Your task to perform on an android device: check android version Image 0: 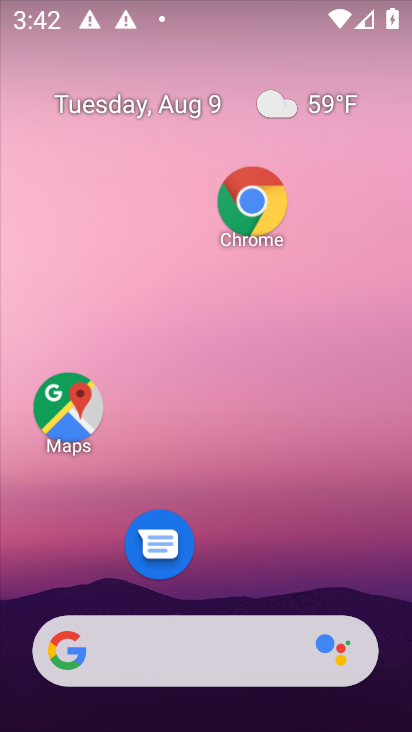
Step 0: drag from (204, 420) to (210, 317)
Your task to perform on an android device: check android version Image 1: 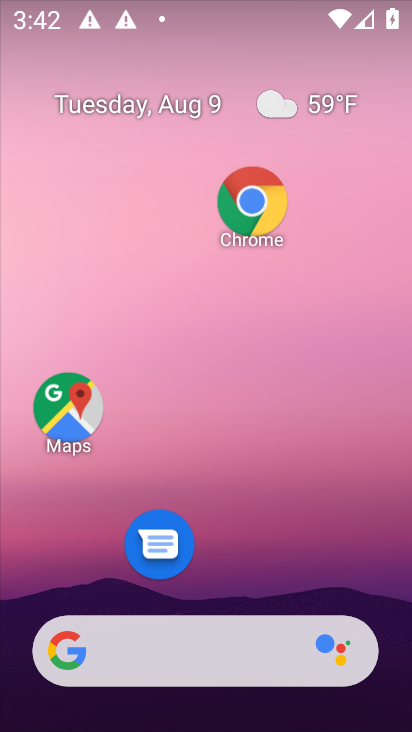
Step 1: drag from (229, 610) to (261, 101)
Your task to perform on an android device: check android version Image 2: 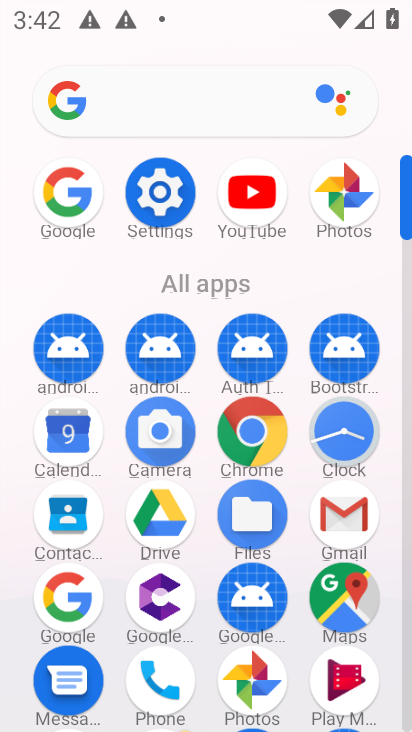
Step 2: click (155, 188)
Your task to perform on an android device: check android version Image 3: 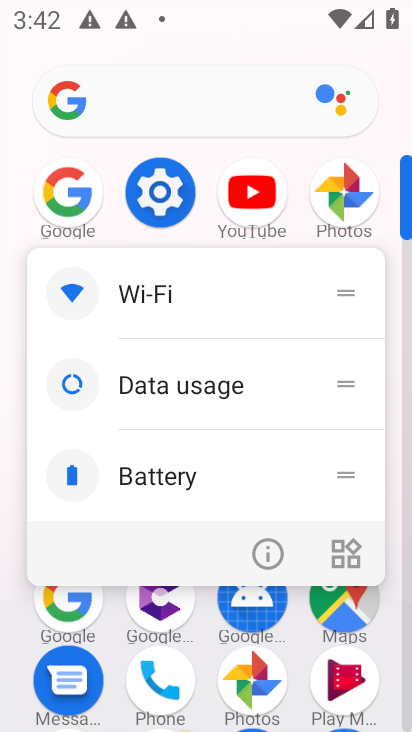
Step 3: click (170, 198)
Your task to perform on an android device: check android version Image 4: 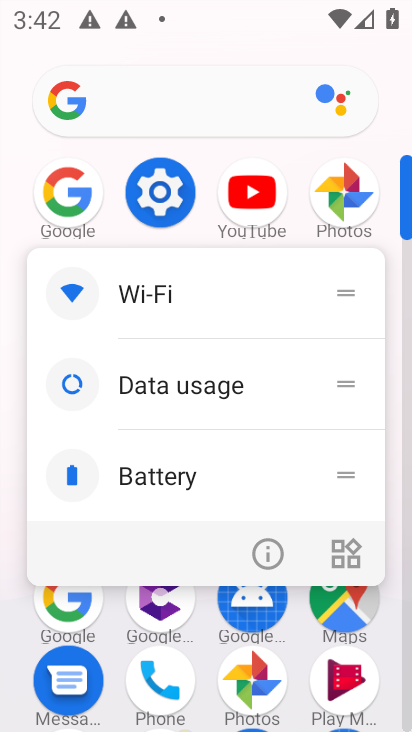
Step 4: click (158, 199)
Your task to perform on an android device: check android version Image 5: 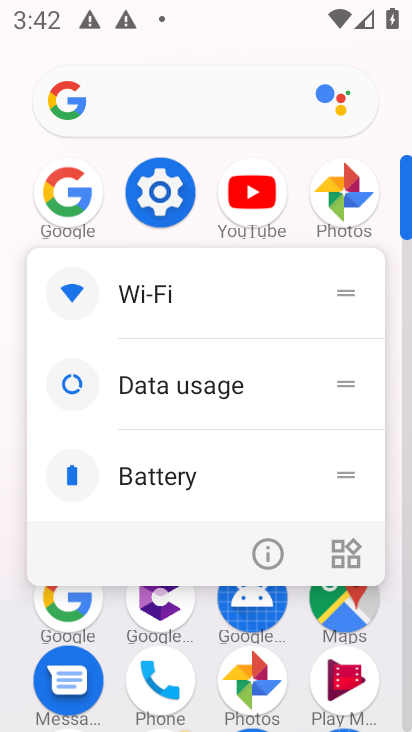
Step 5: click (154, 201)
Your task to perform on an android device: check android version Image 6: 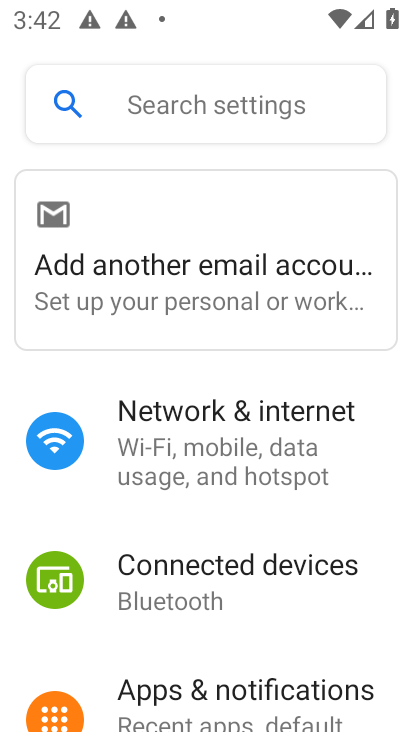
Step 6: drag from (186, 696) to (267, 345)
Your task to perform on an android device: check android version Image 7: 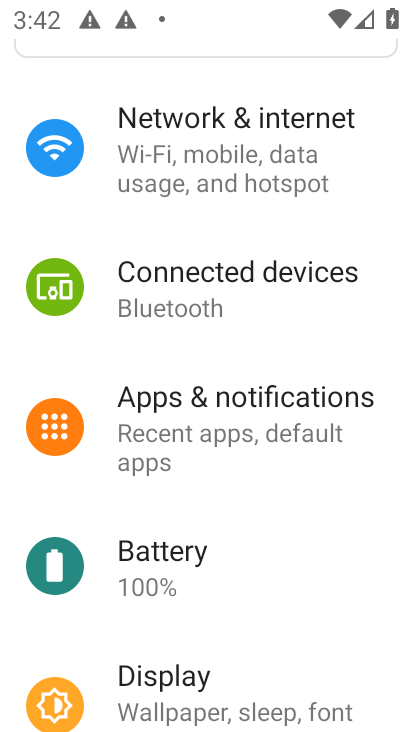
Step 7: drag from (230, 704) to (229, 412)
Your task to perform on an android device: check android version Image 8: 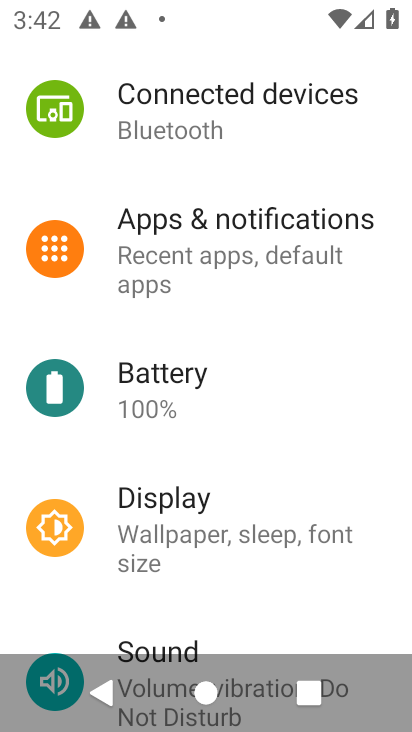
Step 8: drag from (216, 628) to (226, 274)
Your task to perform on an android device: check android version Image 9: 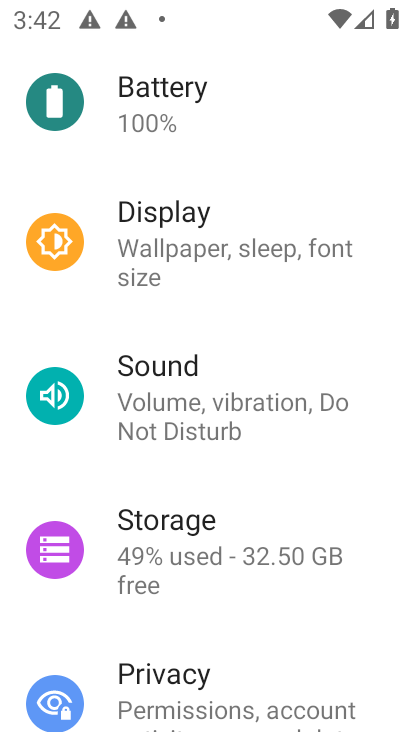
Step 9: drag from (212, 573) to (221, 369)
Your task to perform on an android device: check android version Image 10: 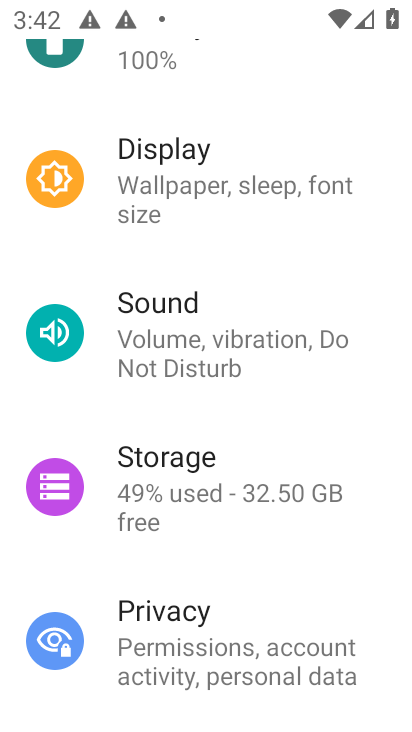
Step 10: drag from (205, 697) to (211, 364)
Your task to perform on an android device: check android version Image 11: 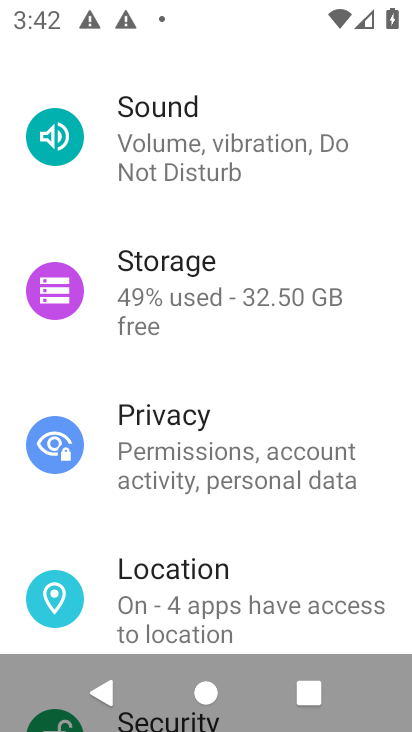
Step 11: drag from (209, 637) to (244, 318)
Your task to perform on an android device: check android version Image 12: 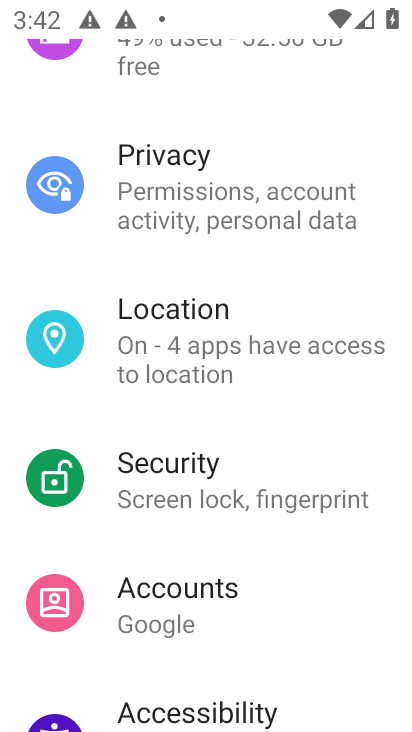
Step 12: drag from (178, 630) to (206, 364)
Your task to perform on an android device: check android version Image 13: 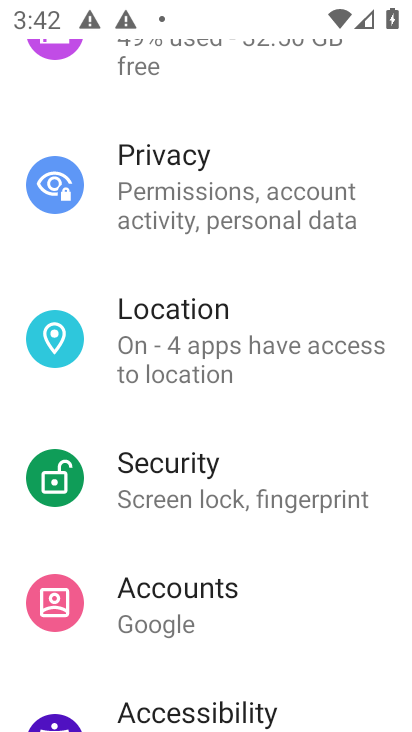
Step 13: drag from (183, 649) to (208, 340)
Your task to perform on an android device: check android version Image 14: 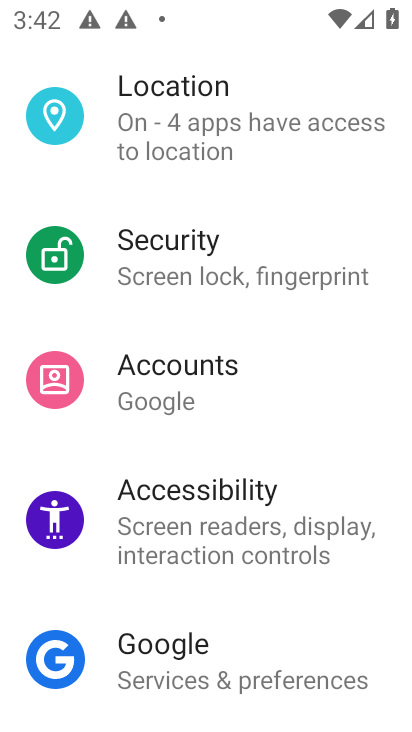
Step 14: drag from (224, 636) to (249, 325)
Your task to perform on an android device: check android version Image 15: 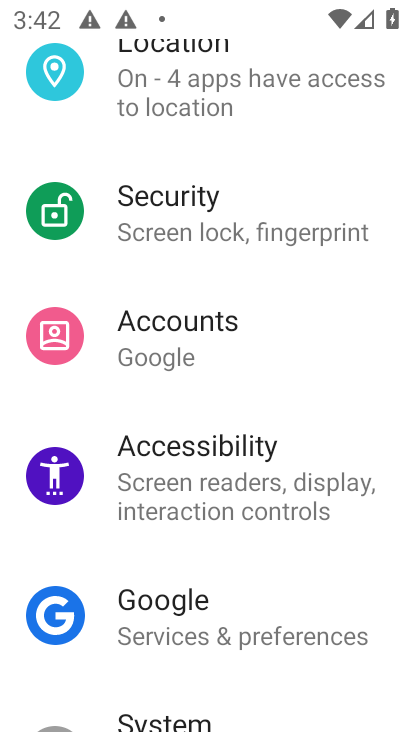
Step 15: drag from (230, 646) to (271, 247)
Your task to perform on an android device: check android version Image 16: 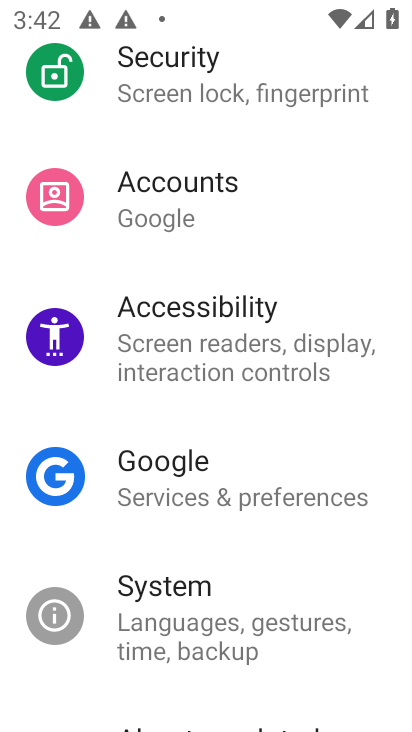
Step 16: drag from (256, 673) to (274, 269)
Your task to perform on an android device: check android version Image 17: 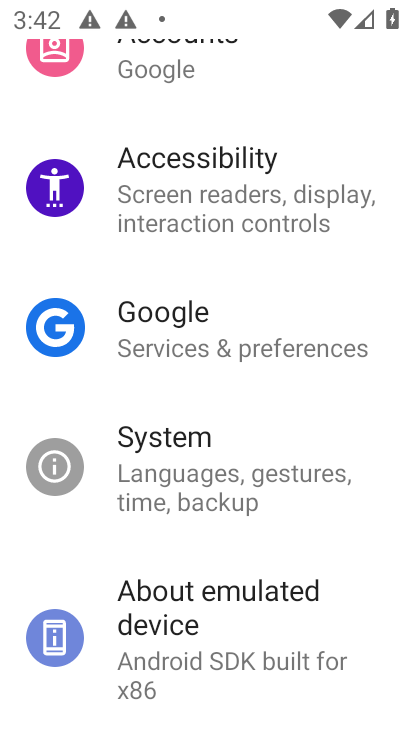
Step 17: drag from (223, 703) to (272, 280)
Your task to perform on an android device: check android version Image 18: 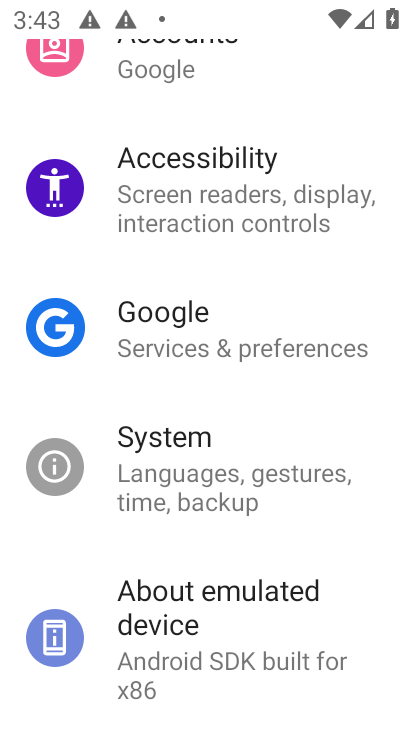
Step 18: click (226, 603)
Your task to perform on an android device: check android version Image 19: 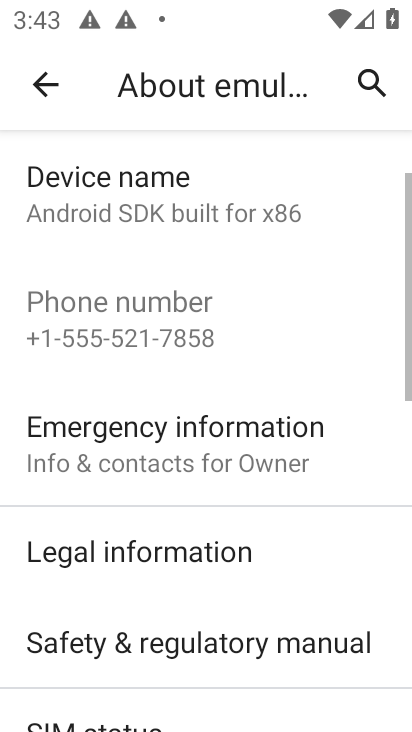
Step 19: task complete